Your task to perform on an android device: How far is the moon? Image 0: 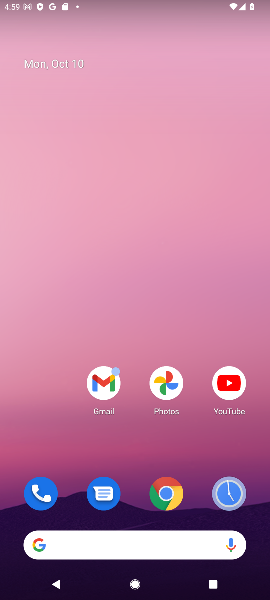
Step 0: click (150, 550)
Your task to perform on an android device: How far is the moon? Image 1: 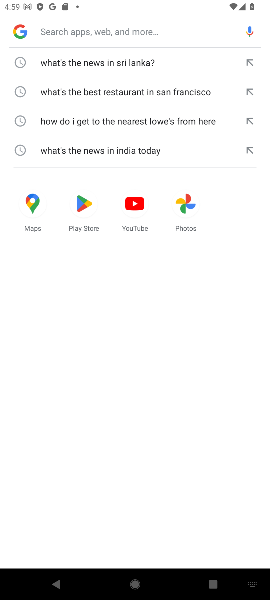
Step 1: type "How far is the moon"
Your task to perform on an android device: How far is the moon? Image 2: 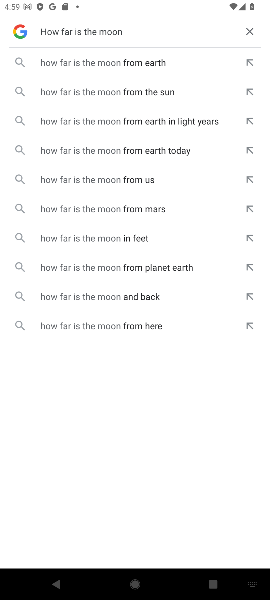
Step 2: click (146, 70)
Your task to perform on an android device: How far is the moon? Image 3: 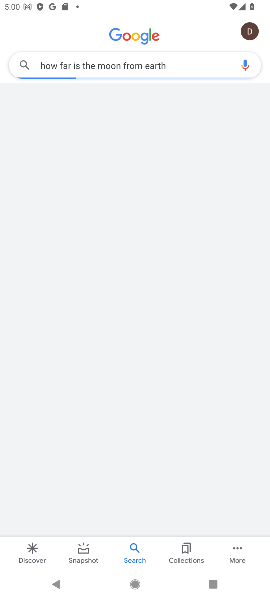
Step 3: task complete